Your task to perform on an android device: set default search engine in the chrome app Image 0: 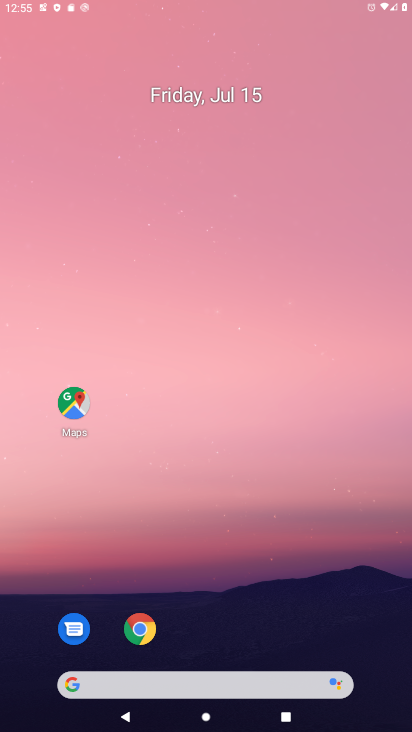
Step 0: press home button
Your task to perform on an android device: set default search engine in the chrome app Image 1: 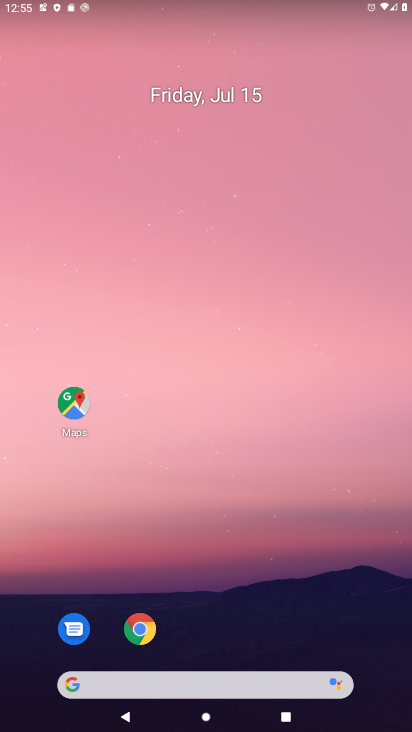
Step 1: drag from (228, 637) to (219, 0)
Your task to perform on an android device: set default search engine in the chrome app Image 2: 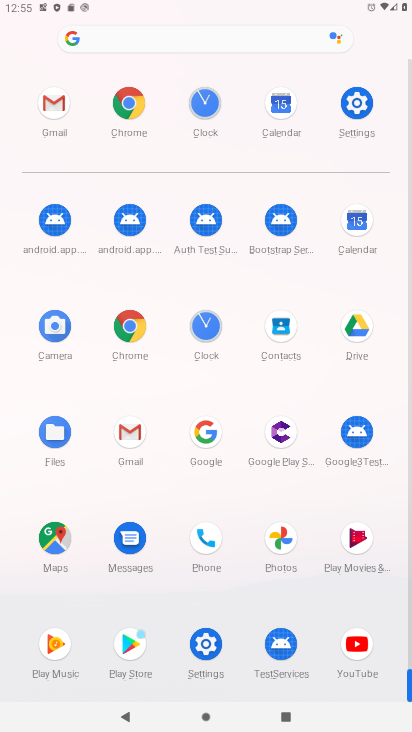
Step 2: click (120, 110)
Your task to perform on an android device: set default search engine in the chrome app Image 3: 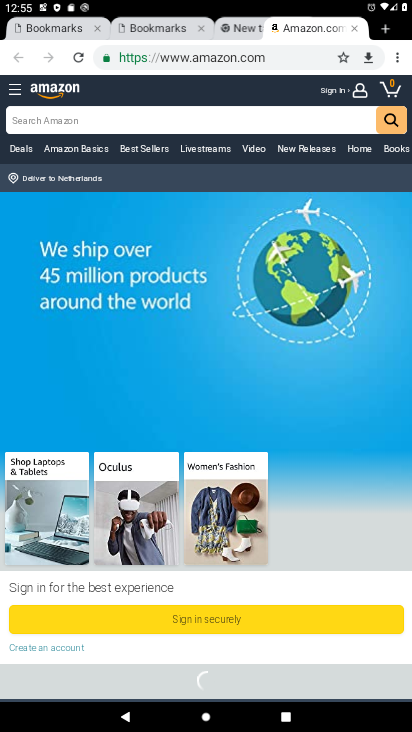
Step 3: drag from (398, 63) to (271, 388)
Your task to perform on an android device: set default search engine in the chrome app Image 4: 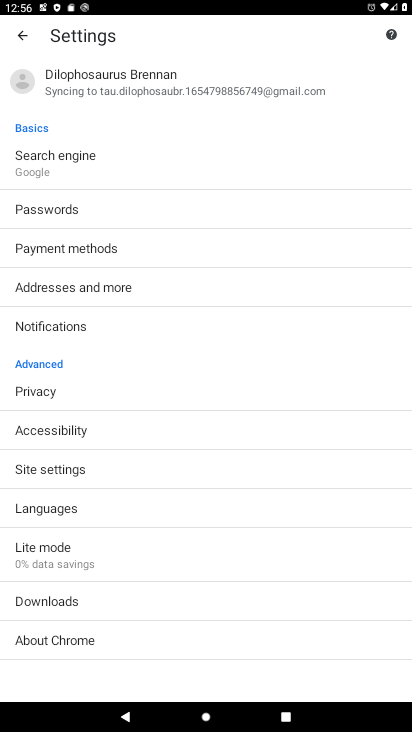
Step 4: click (57, 159)
Your task to perform on an android device: set default search engine in the chrome app Image 5: 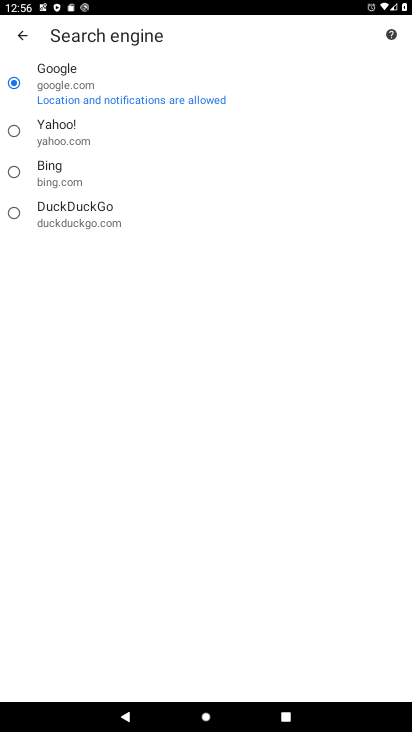
Step 5: click (14, 208)
Your task to perform on an android device: set default search engine in the chrome app Image 6: 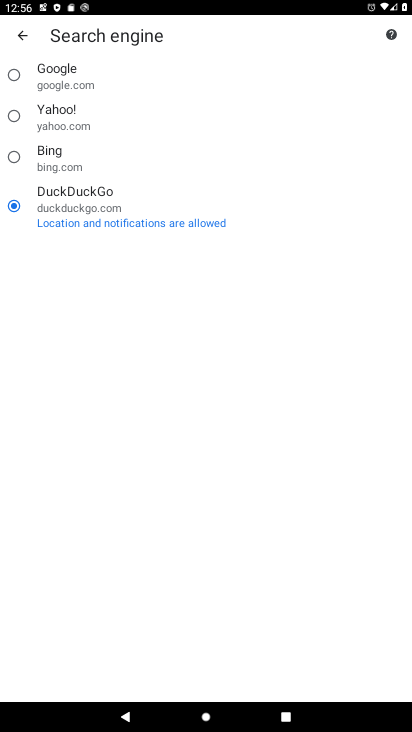
Step 6: task complete